Your task to perform on an android device: turn off improve location accuracy Image 0: 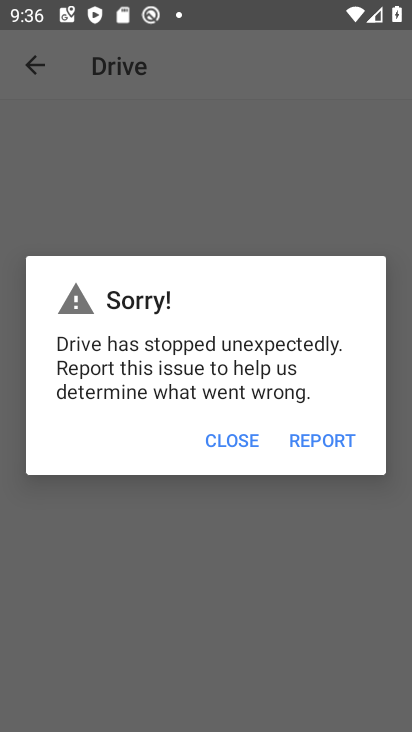
Step 0: press home button
Your task to perform on an android device: turn off improve location accuracy Image 1: 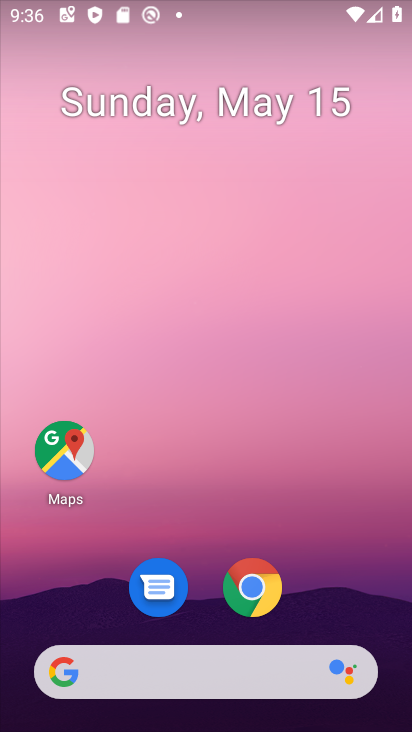
Step 1: drag from (376, 620) to (266, 96)
Your task to perform on an android device: turn off improve location accuracy Image 2: 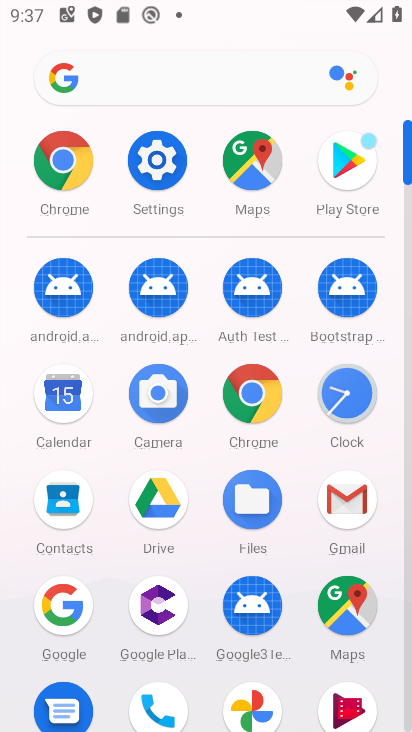
Step 2: click (156, 181)
Your task to perform on an android device: turn off improve location accuracy Image 3: 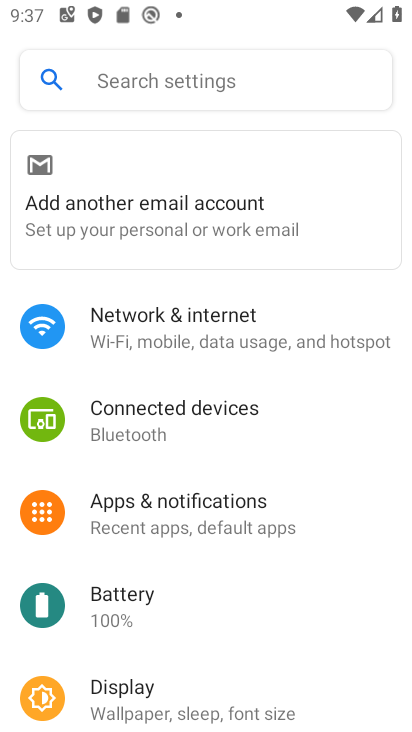
Step 3: drag from (262, 611) to (236, 269)
Your task to perform on an android device: turn off improve location accuracy Image 4: 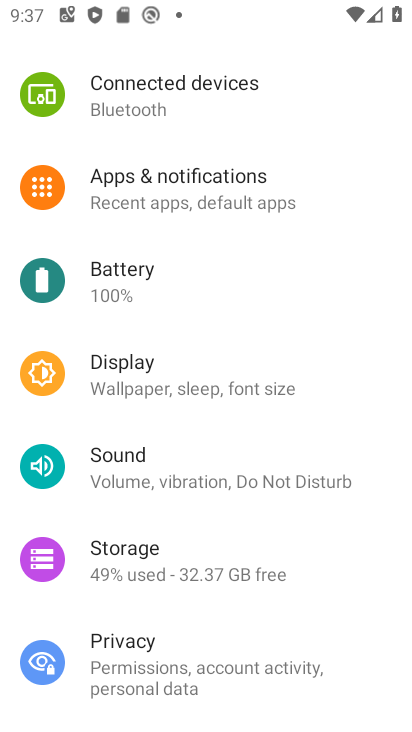
Step 4: drag from (194, 630) to (188, 281)
Your task to perform on an android device: turn off improve location accuracy Image 5: 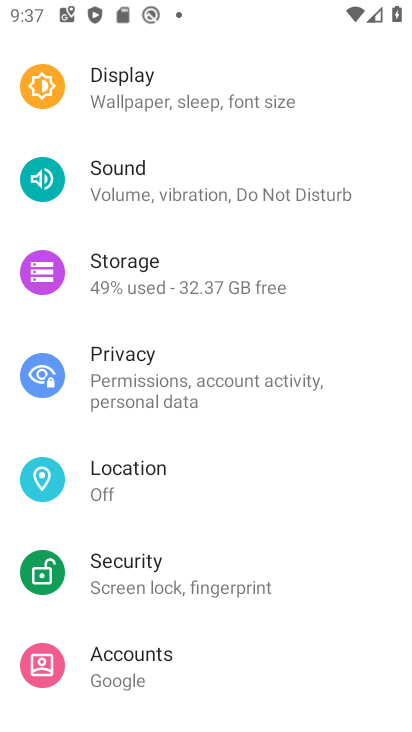
Step 5: click (160, 484)
Your task to perform on an android device: turn off improve location accuracy Image 6: 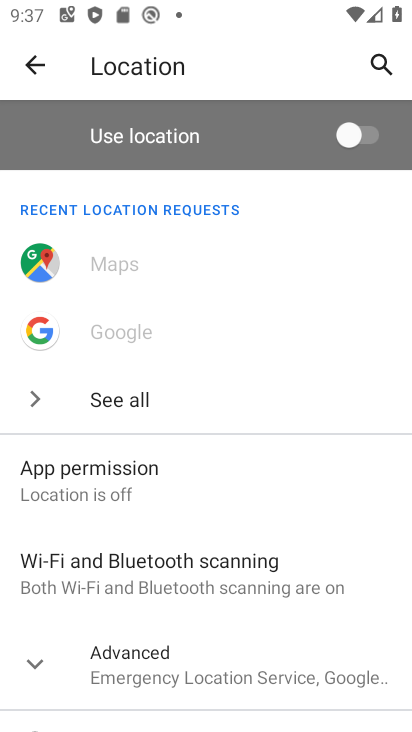
Step 6: click (151, 653)
Your task to perform on an android device: turn off improve location accuracy Image 7: 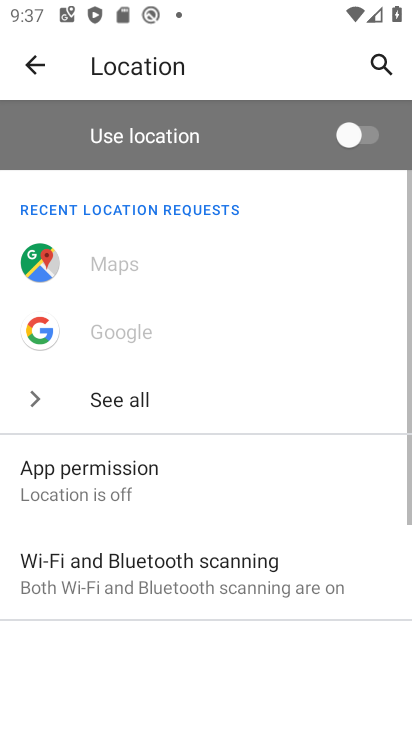
Step 7: drag from (187, 622) to (213, 317)
Your task to perform on an android device: turn off improve location accuracy Image 8: 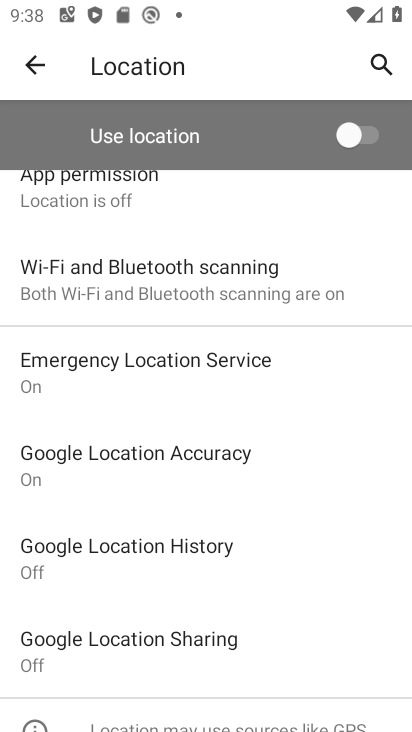
Step 8: click (201, 441)
Your task to perform on an android device: turn off improve location accuracy Image 9: 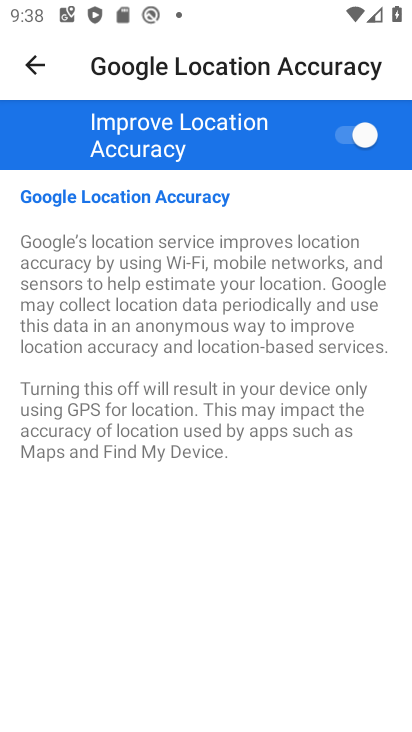
Step 9: click (357, 151)
Your task to perform on an android device: turn off improve location accuracy Image 10: 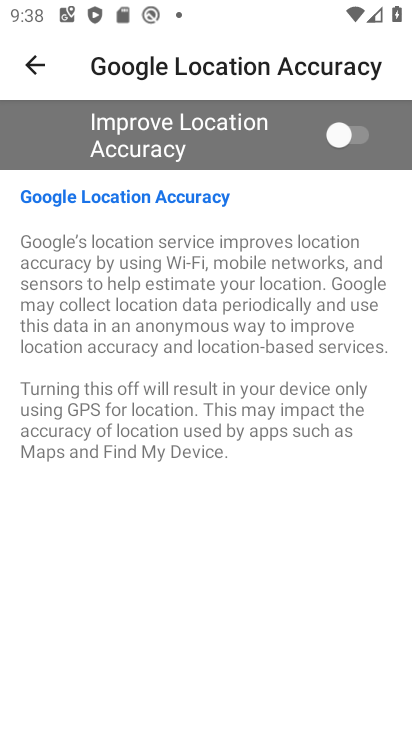
Step 10: task complete